Your task to perform on an android device: open app "Lyft - Rideshare, Bikes, Scooters & Transit" Image 0: 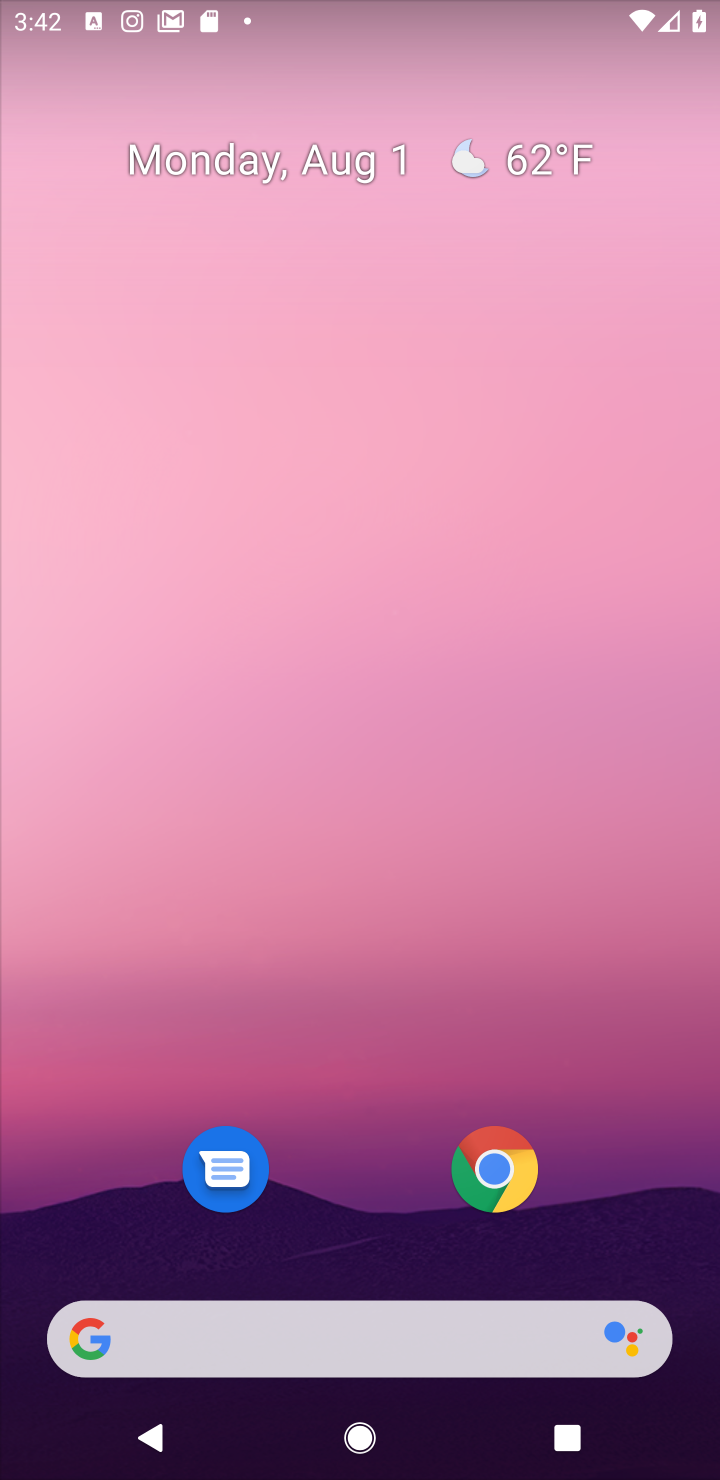
Step 0: drag from (323, 1181) to (439, 175)
Your task to perform on an android device: open app "Lyft - Rideshare, Bikes, Scooters & Transit" Image 1: 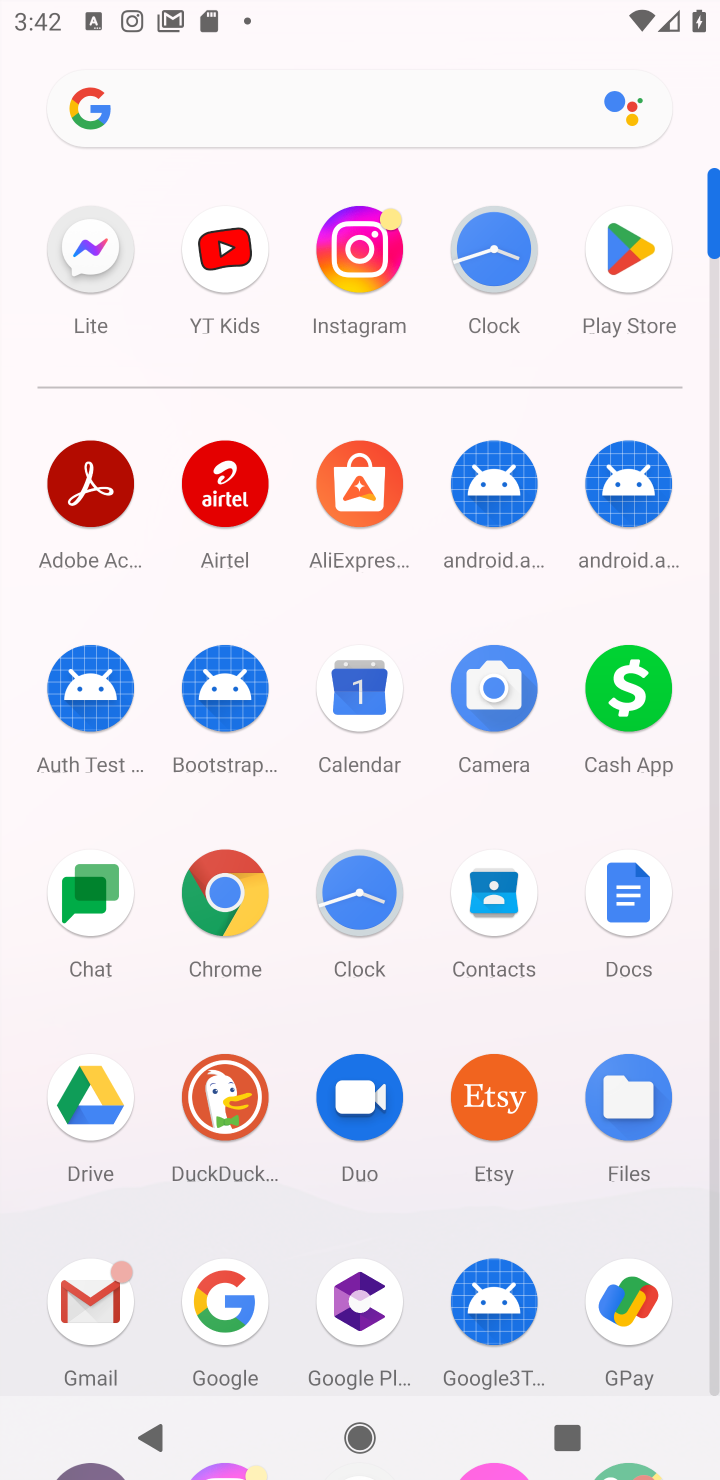
Step 1: click (626, 264)
Your task to perform on an android device: open app "Lyft - Rideshare, Bikes, Scooters & Transit" Image 2: 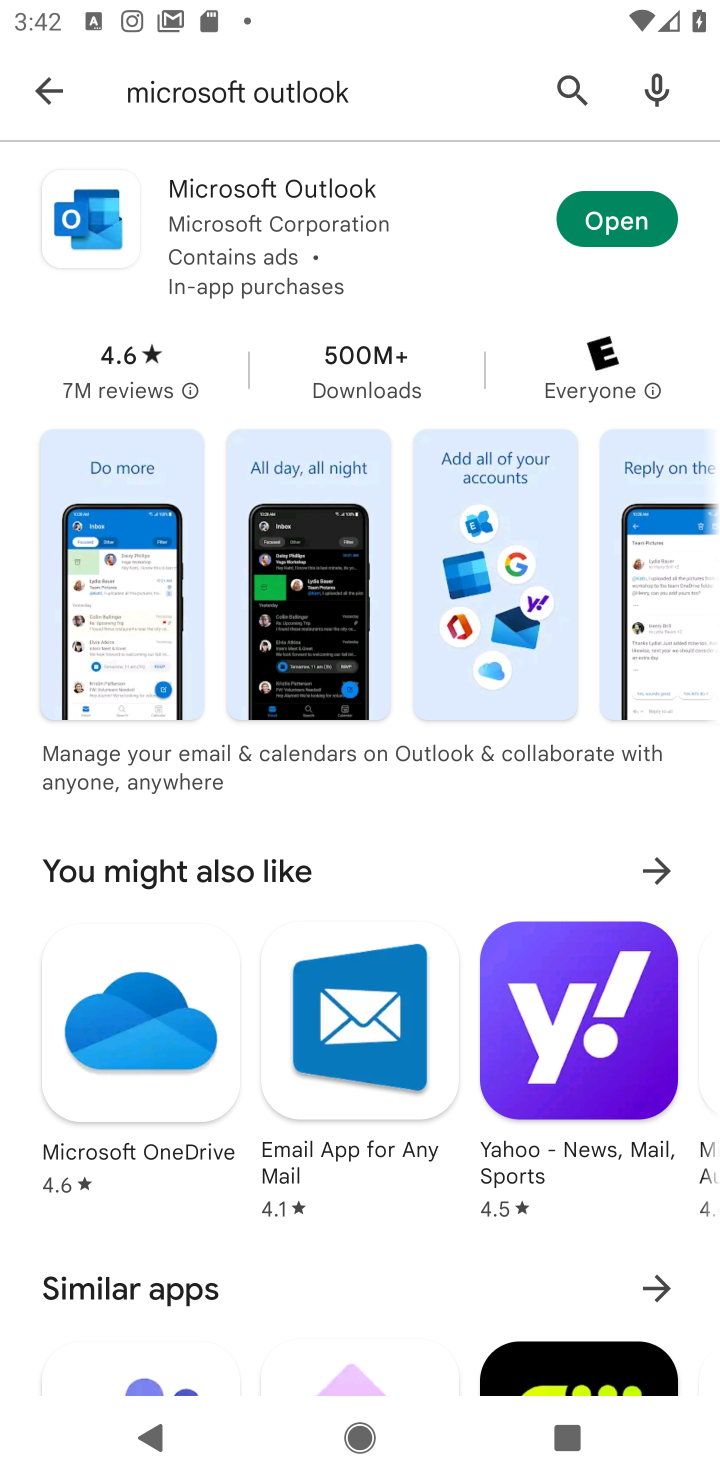
Step 2: click (70, 137)
Your task to perform on an android device: open app "Lyft - Rideshare, Bikes, Scooters & Transit" Image 3: 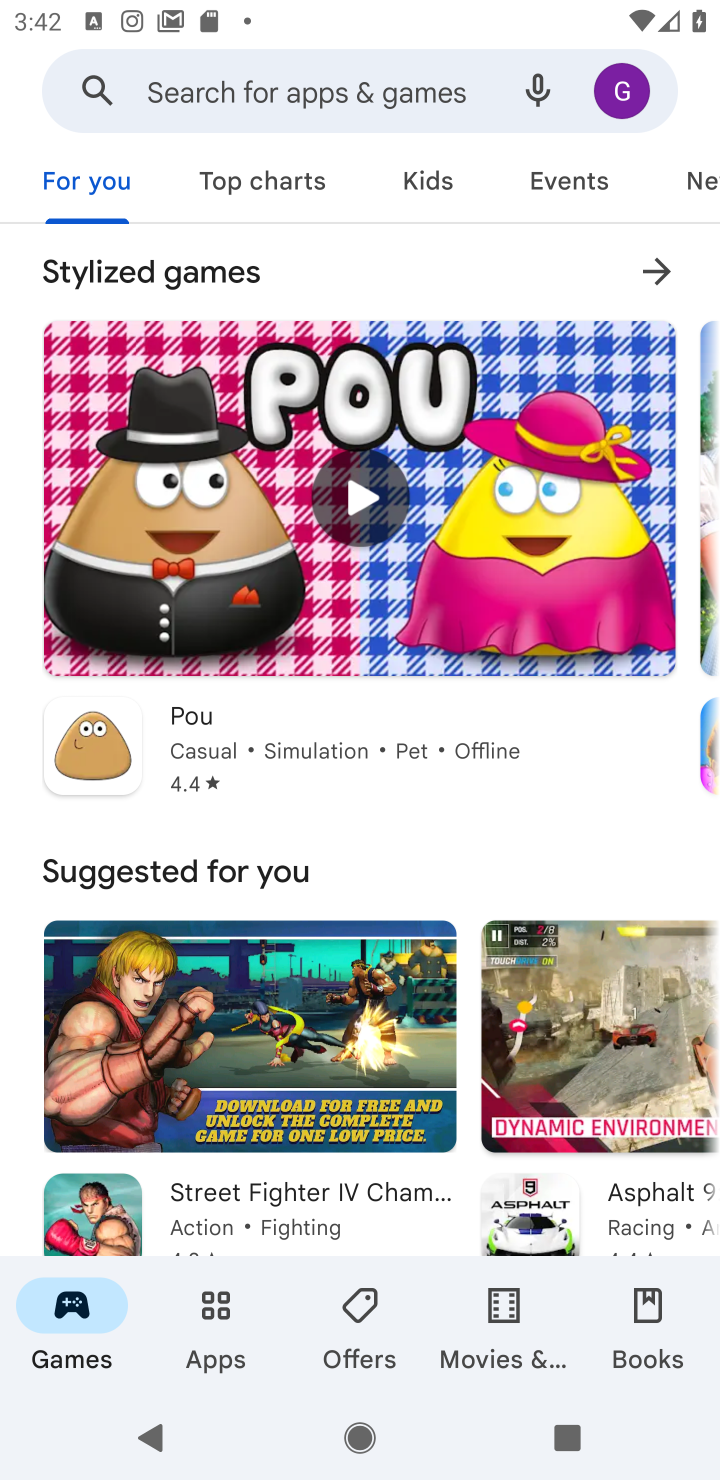
Step 3: click (381, 79)
Your task to perform on an android device: open app "Lyft - Rideshare, Bikes, Scooters & Transit" Image 4: 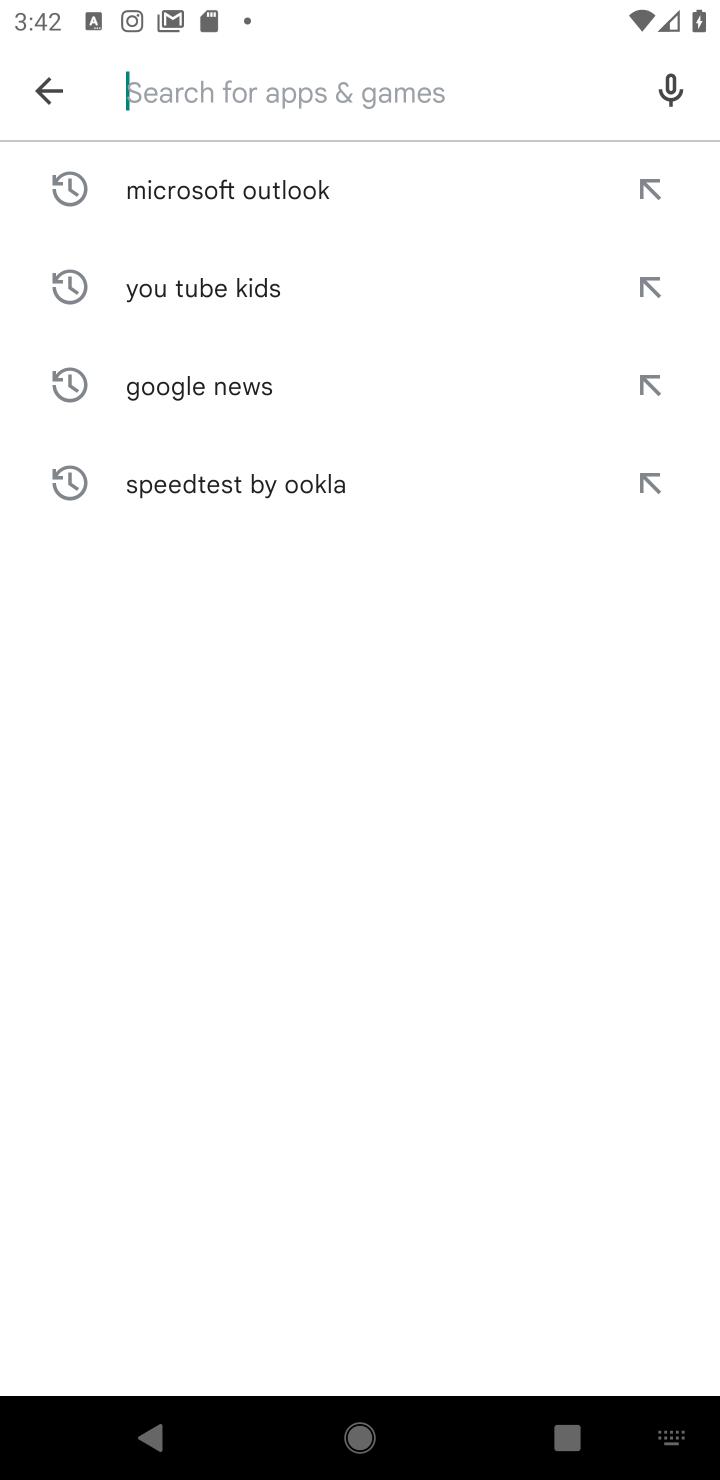
Step 4: type "Lyft - Rideshare, Bikes, Scooters & Transit"
Your task to perform on an android device: open app "Lyft - Rideshare, Bikes, Scooters & Transit" Image 5: 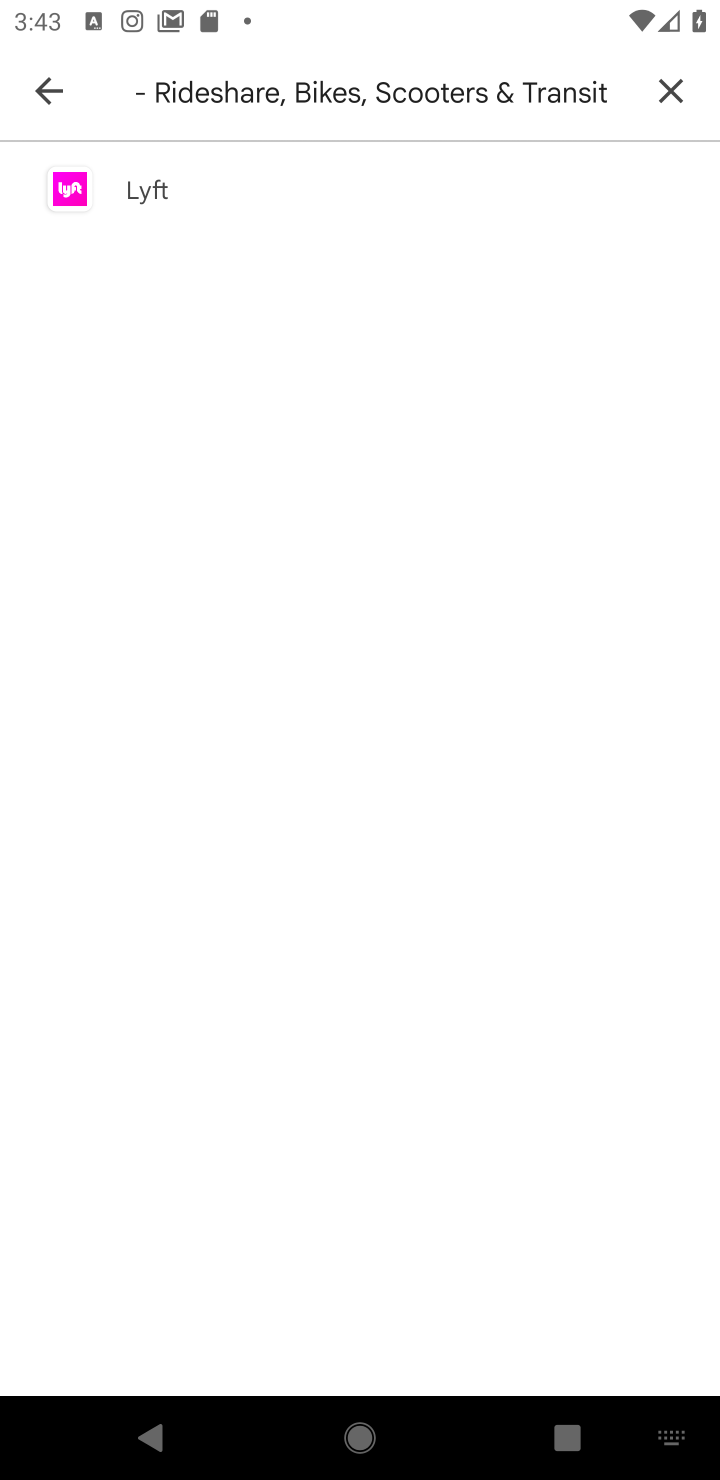
Step 5: click (118, 187)
Your task to perform on an android device: open app "Lyft - Rideshare, Bikes, Scooters & Transit" Image 6: 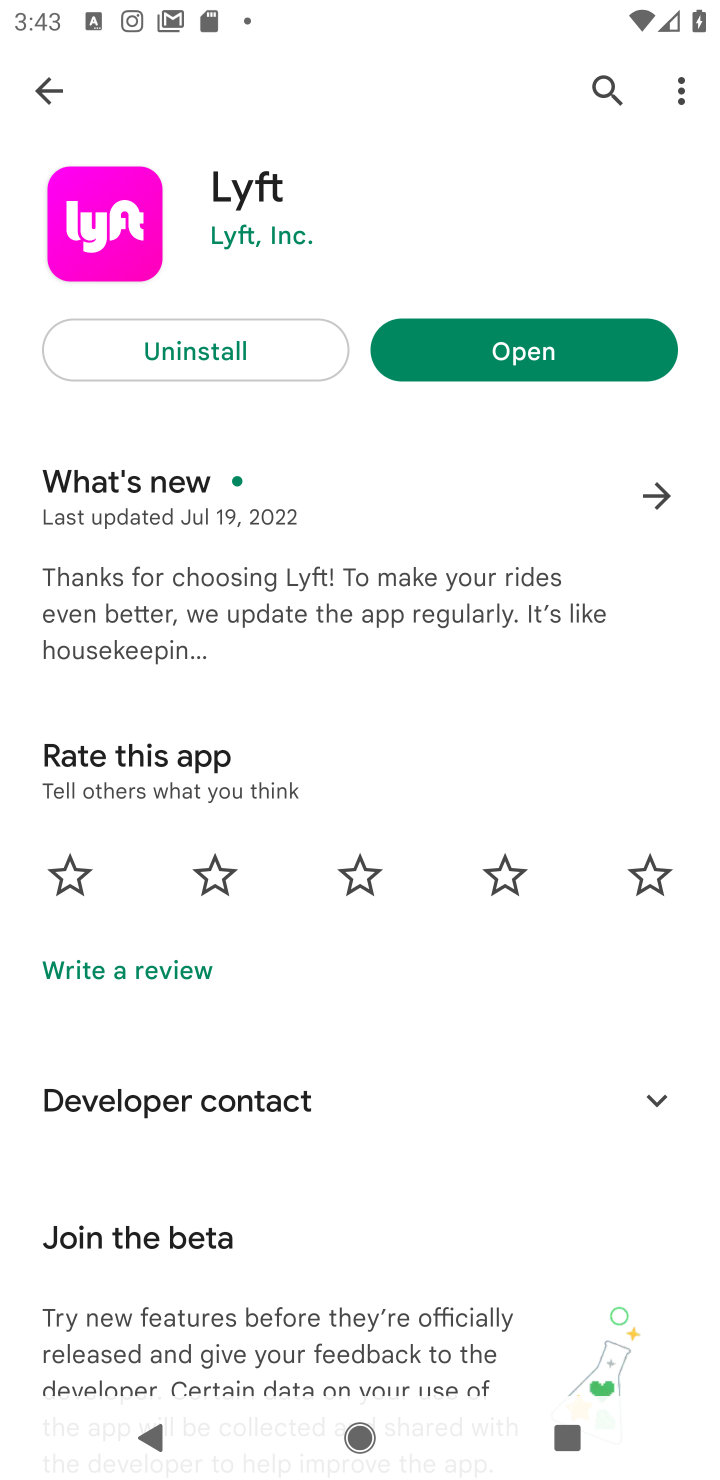
Step 6: click (519, 363)
Your task to perform on an android device: open app "Lyft - Rideshare, Bikes, Scooters & Transit" Image 7: 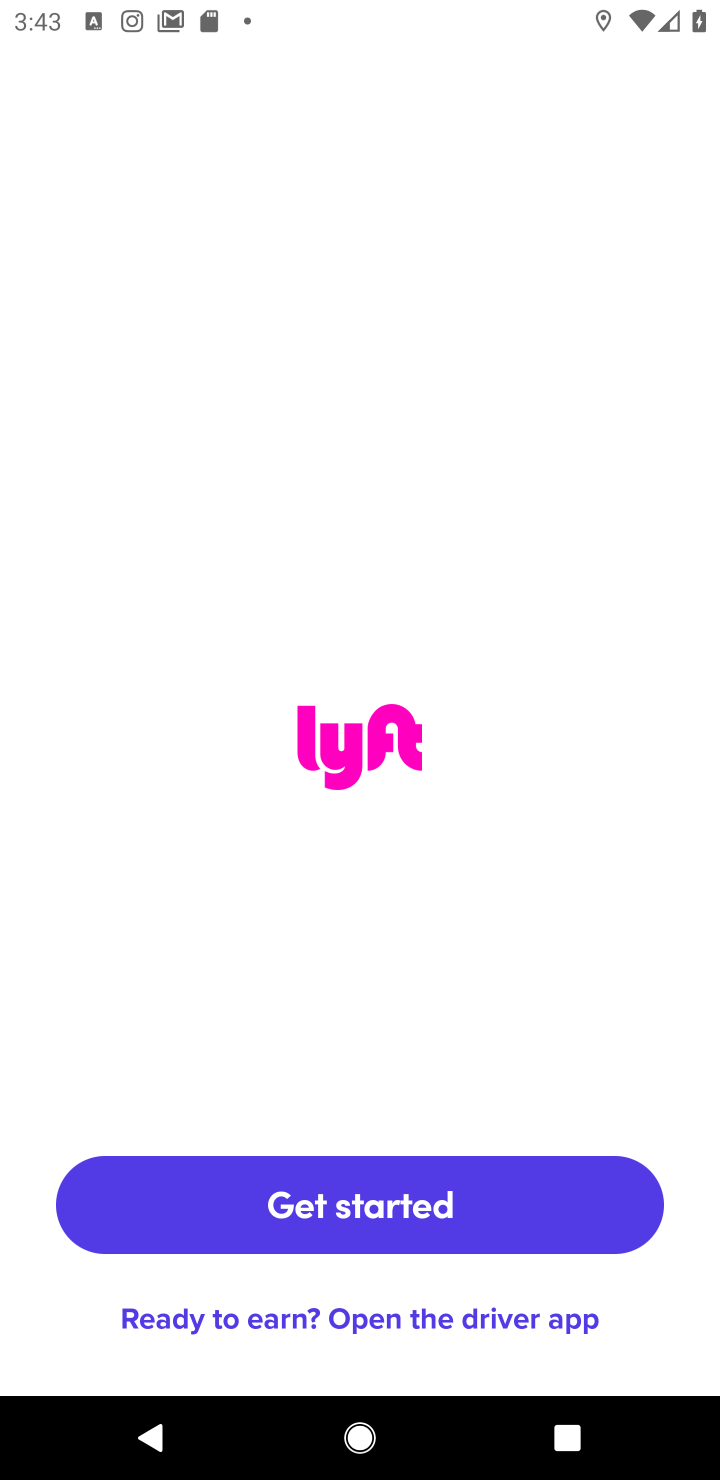
Step 7: task complete